Your task to perform on an android device: clear all cookies in the chrome app Image 0: 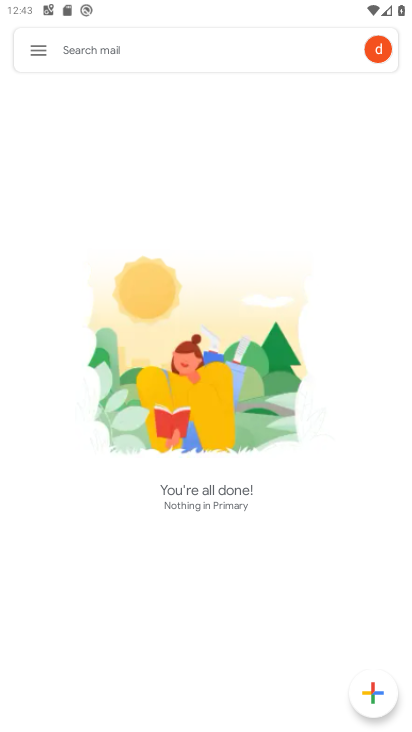
Step 0: press home button
Your task to perform on an android device: clear all cookies in the chrome app Image 1: 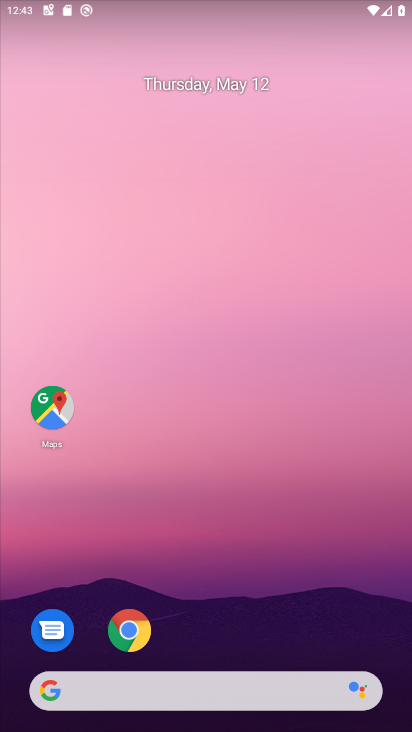
Step 1: drag from (230, 625) to (241, 22)
Your task to perform on an android device: clear all cookies in the chrome app Image 2: 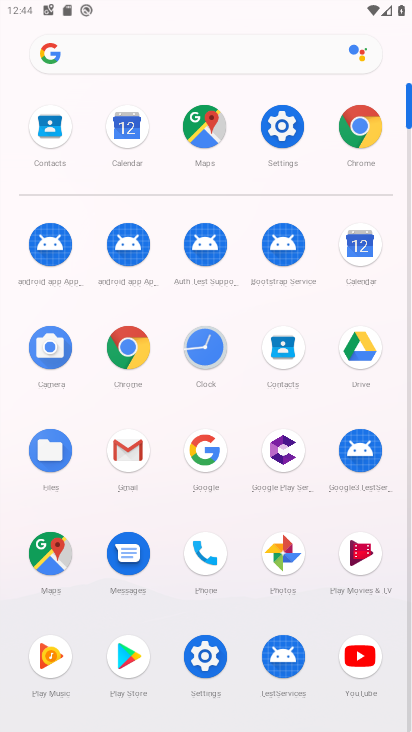
Step 2: click (357, 129)
Your task to perform on an android device: clear all cookies in the chrome app Image 3: 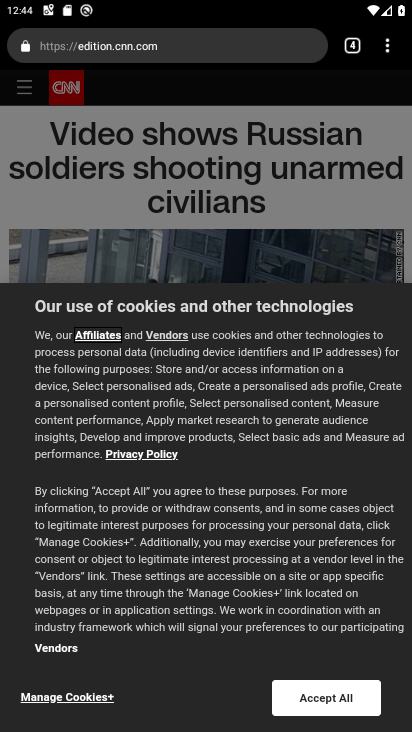
Step 3: drag from (388, 47) to (232, 511)
Your task to perform on an android device: clear all cookies in the chrome app Image 4: 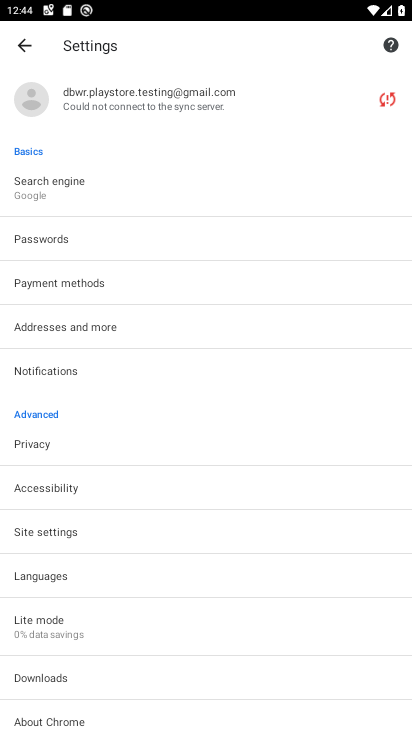
Step 4: drag from (167, 630) to (193, 274)
Your task to perform on an android device: clear all cookies in the chrome app Image 5: 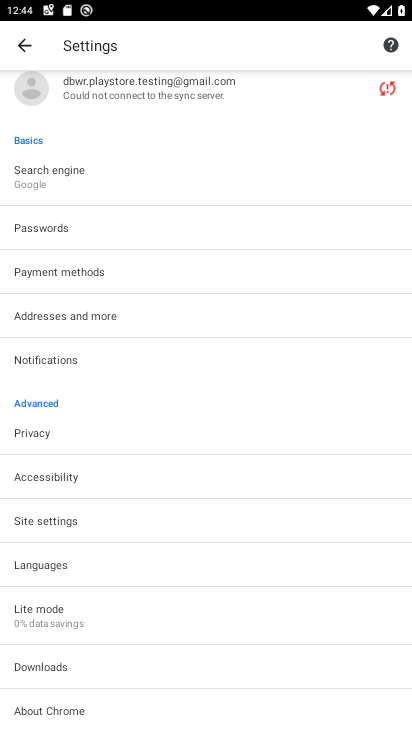
Step 5: click (29, 432)
Your task to perform on an android device: clear all cookies in the chrome app Image 6: 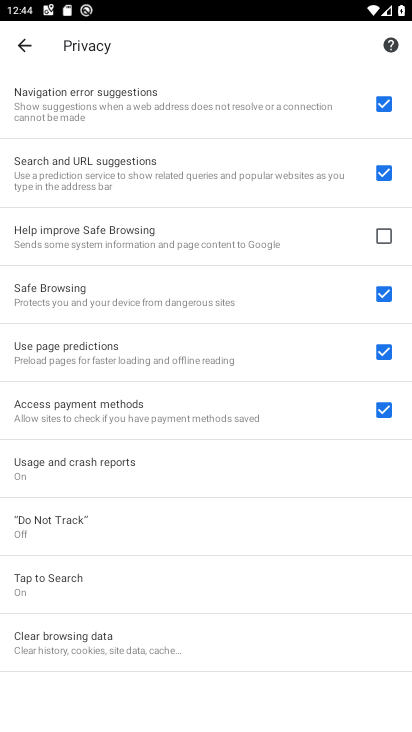
Step 6: click (53, 643)
Your task to perform on an android device: clear all cookies in the chrome app Image 7: 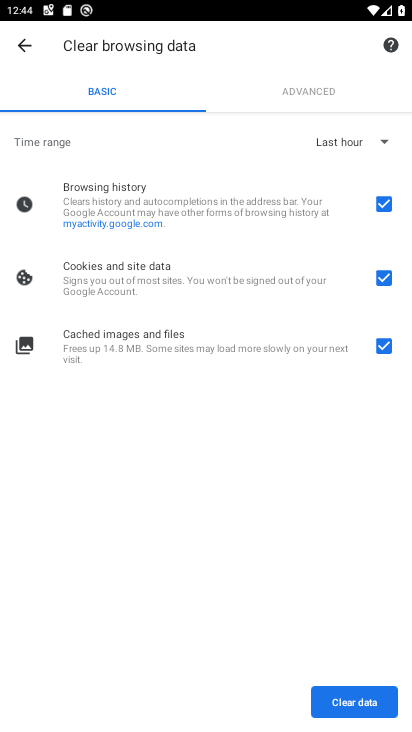
Step 7: click (329, 694)
Your task to perform on an android device: clear all cookies in the chrome app Image 8: 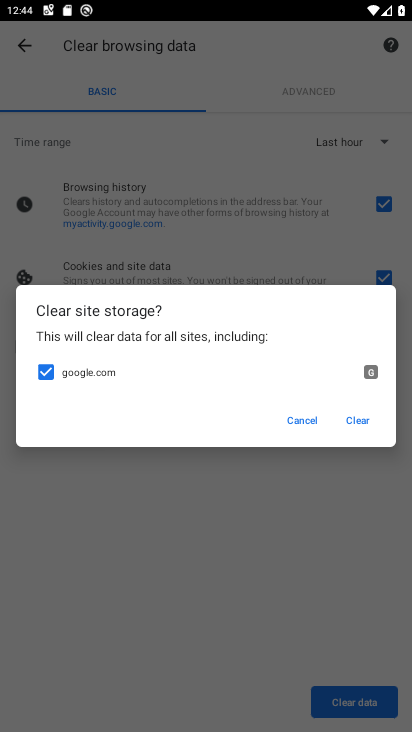
Step 8: click (355, 413)
Your task to perform on an android device: clear all cookies in the chrome app Image 9: 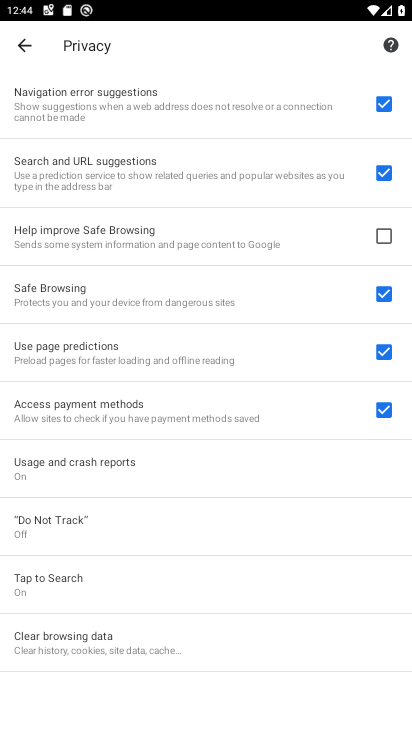
Step 9: task complete